Your task to perform on an android device: Search for hotels in Boston Image 0: 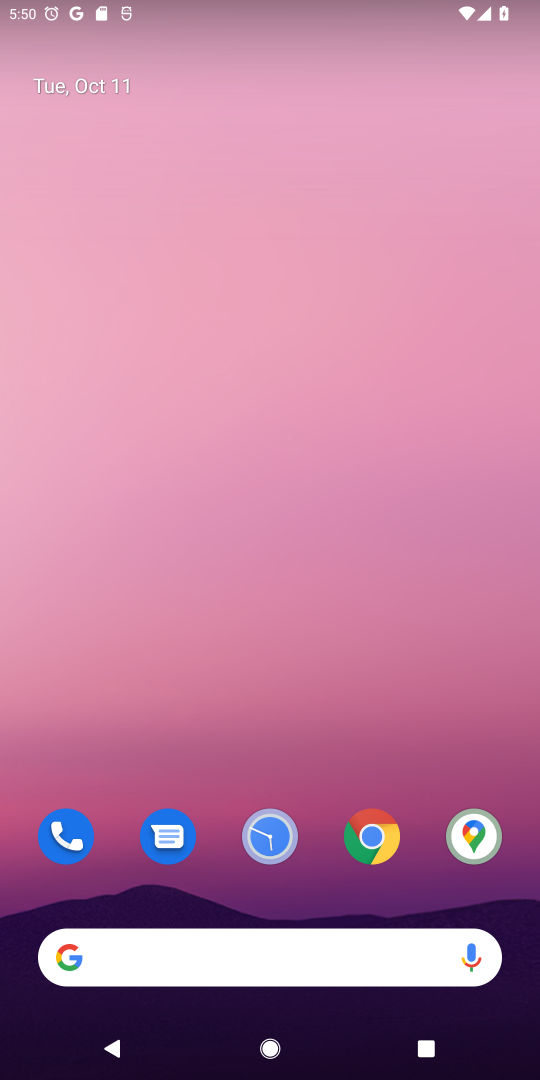
Step 0: click (270, 963)
Your task to perform on an android device: Search for hotels in Boston Image 1: 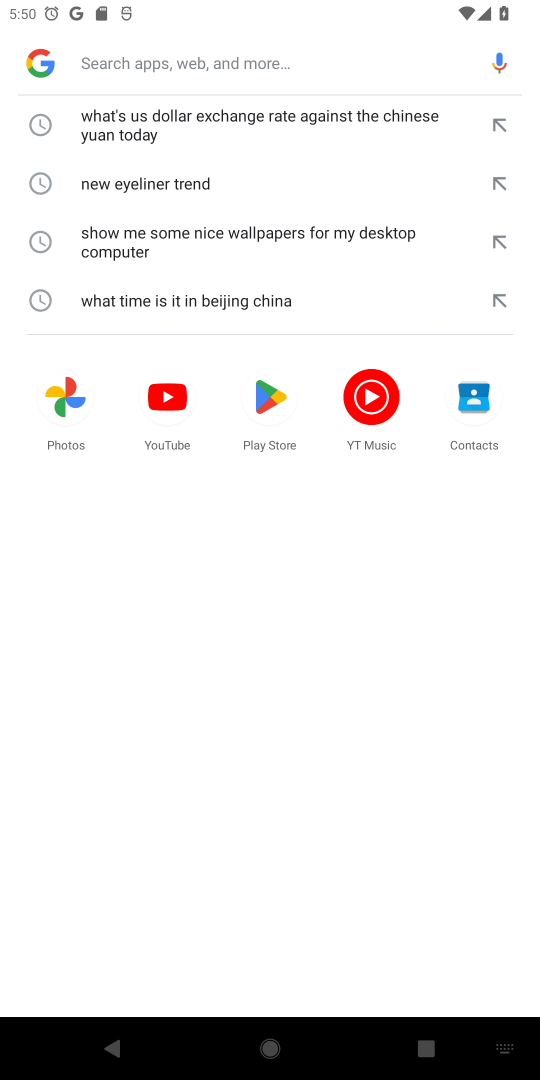
Step 1: type "Search for hotels in Boston"
Your task to perform on an android device: Search for hotels in Boston Image 2: 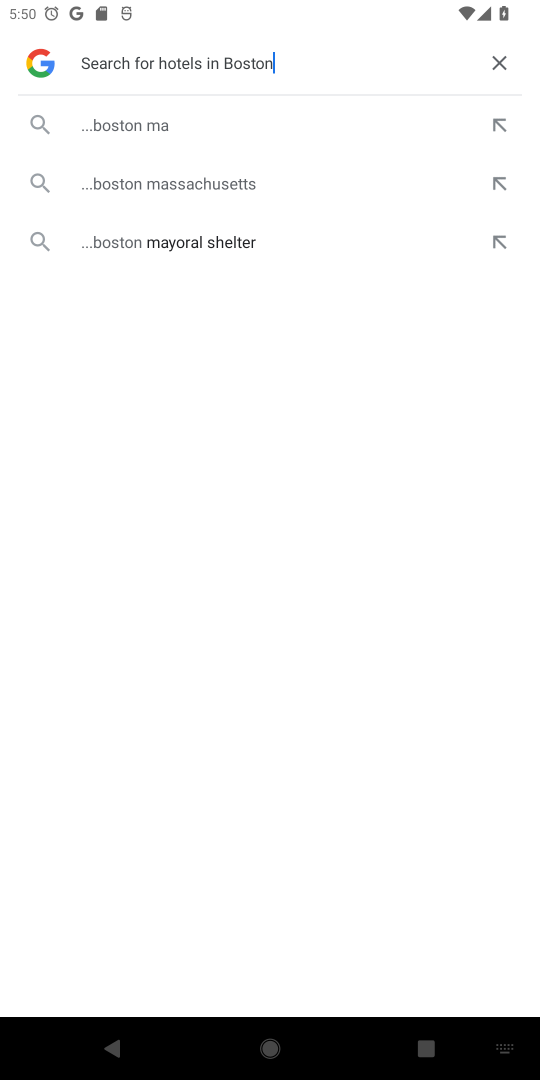
Step 2: click (217, 114)
Your task to perform on an android device: Search for hotels in Boston Image 3: 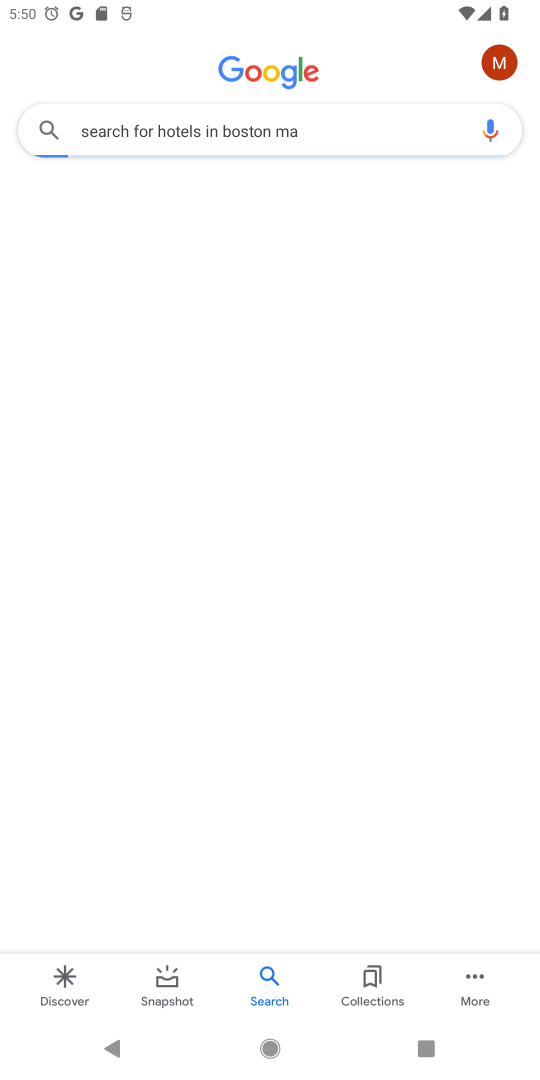
Step 3: task complete